Your task to perform on an android device: turn off data saver in the chrome app Image 0: 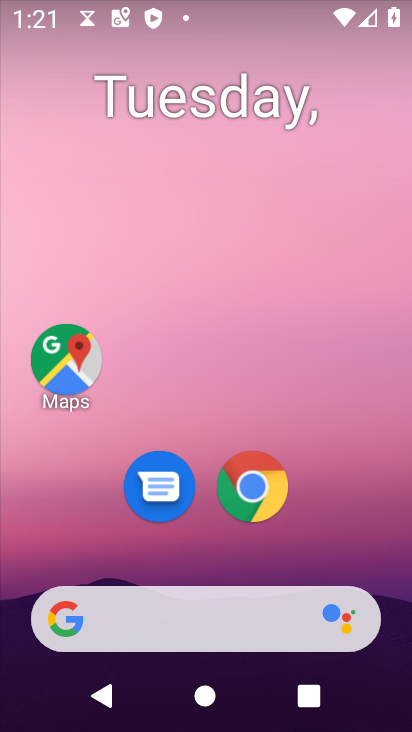
Step 0: click (255, 497)
Your task to perform on an android device: turn off data saver in the chrome app Image 1: 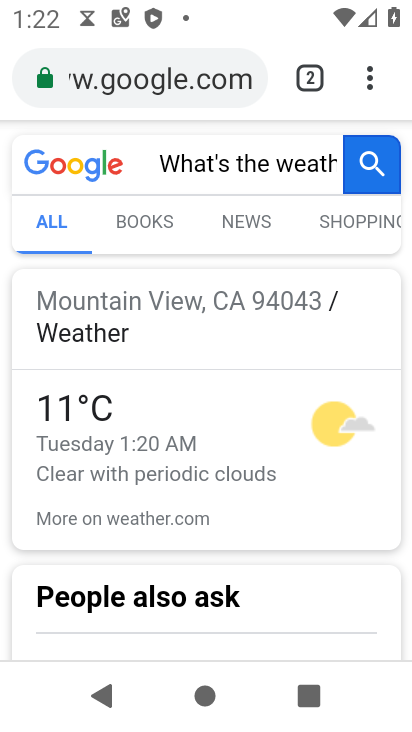
Step 1: click (381, 67)
Your task to perform on an android device: turn off data saver in the chrome app Image 2: 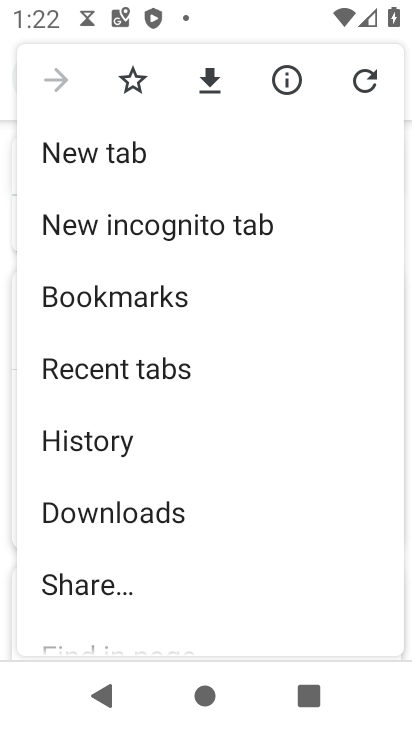
Step 2: drag from (142, 625) to (122, 142)
Your task to perform on an android device: turn off data saver in the chrome app Image 3: 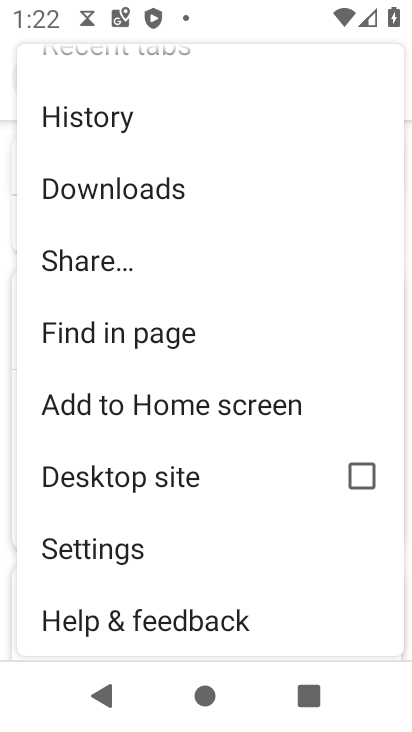
Step 3: click (164, 568)
Your task to perform on an android device: turn off data saver in the chrome app Image 4: 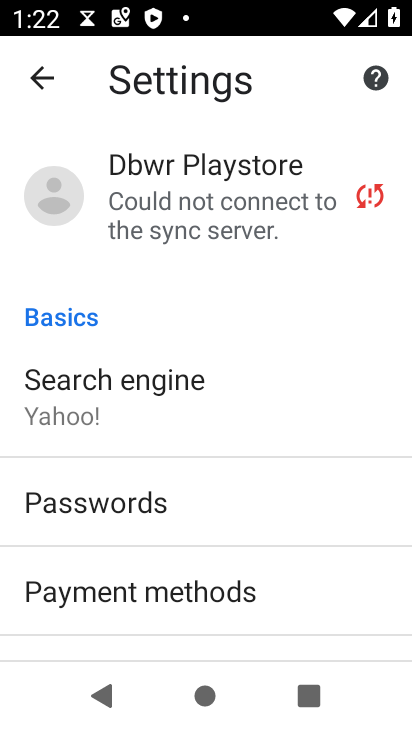
Step 4: drag from (235, 602) to (166, 150)
Your task to perform on an android device: turn off data saver in the chrome app Image 5: 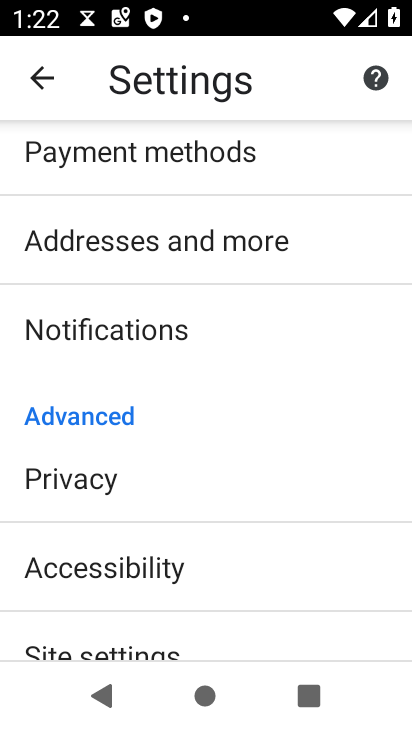
Step 5: drag from (275, 586) to (219, 149)
Your task to perform on an android device: turn off data saver in the chrome app Image 6: 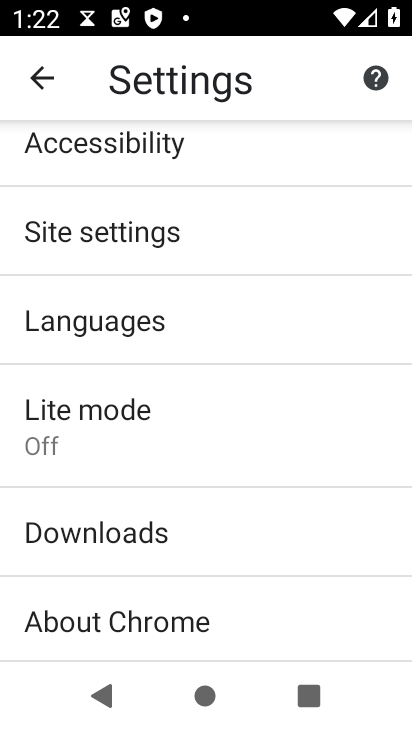
Step 6: click (206, 407)
Your task to perform on an android device: turn off data saver in the chrome app Image 7: 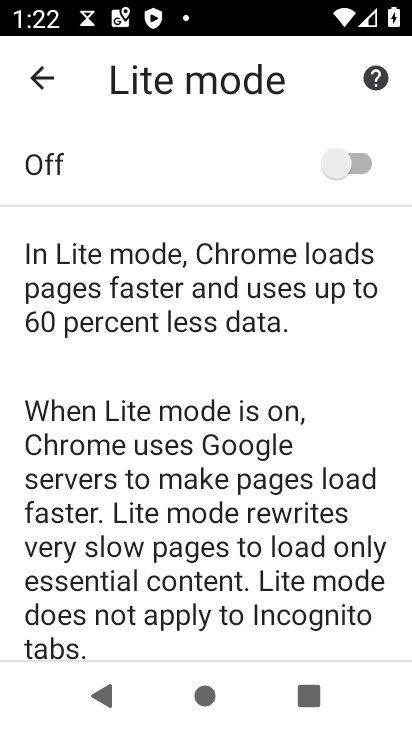
Step 7: task complete